Your task to perform on an android device: See recent photos Image 0: 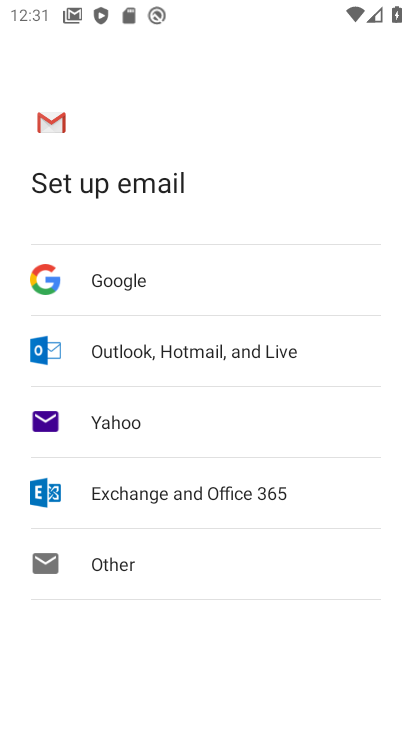
Step 0: press home button
Your task to perform on an android device: See recent photos Image 1: 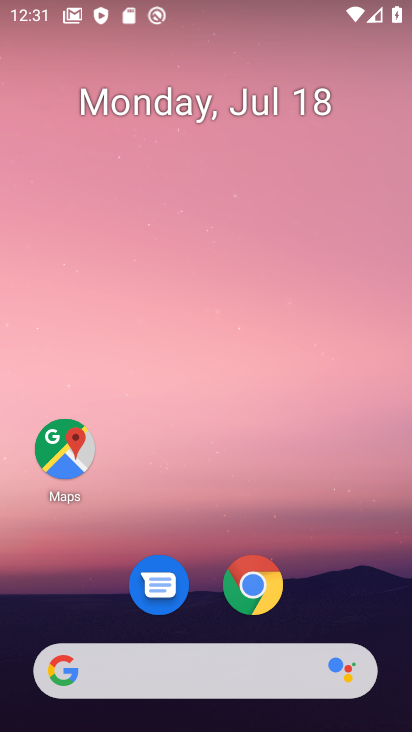
Step 1: drag from (250, 678) to (321, 121)
Your task to perform on an android device: See recent photos Image 2: 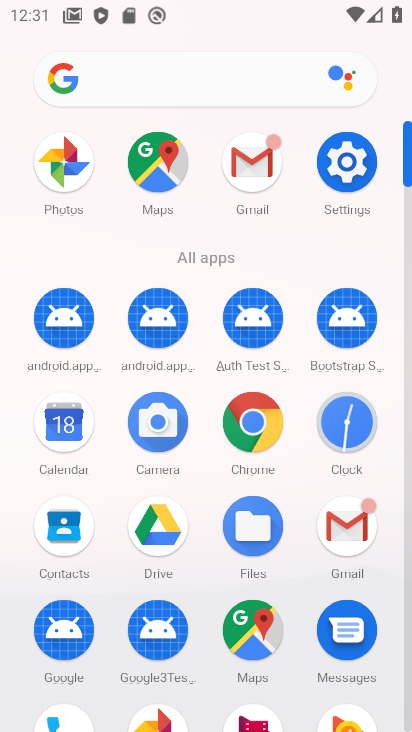
Step 2: drag from (194, 623) to (351, 232)
Your task to perform on an android device: See recent photos Image 3: 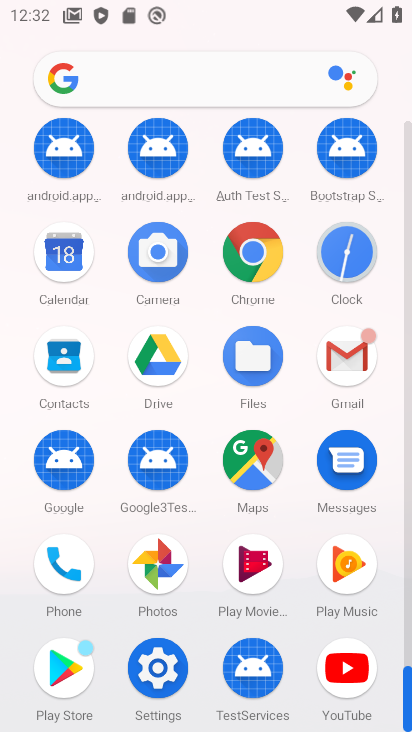
Step 3: click (142, 560)
Your task to perform on an android device: See recent photos Image 4: 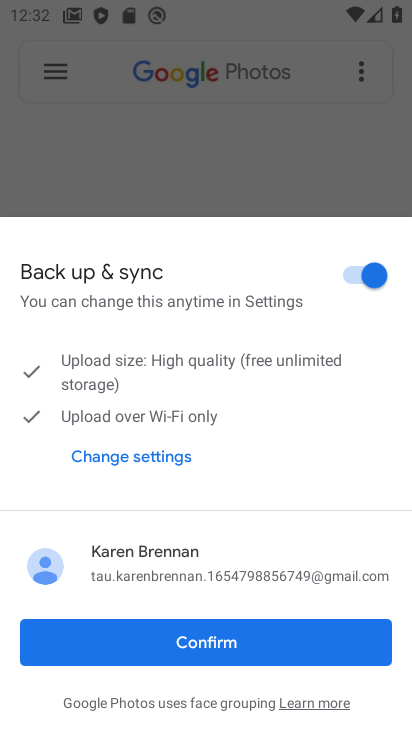
Step 4: click (225, 653)
Your task to perform on an android device: See recent photos Image 5: 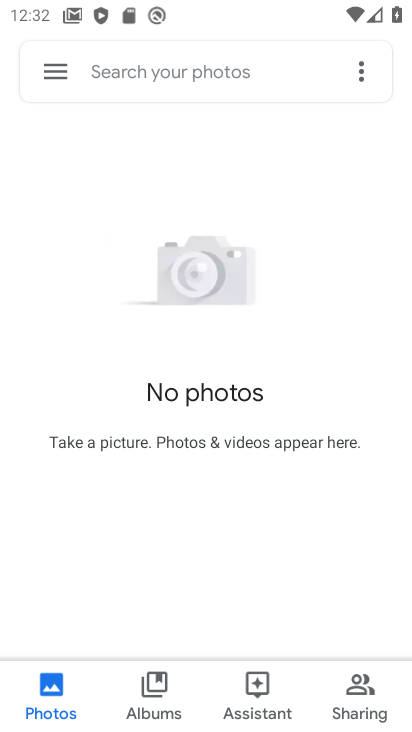
Step 5: click (164, 702)
Your task to perform on an android device: See recent photos Image 6: 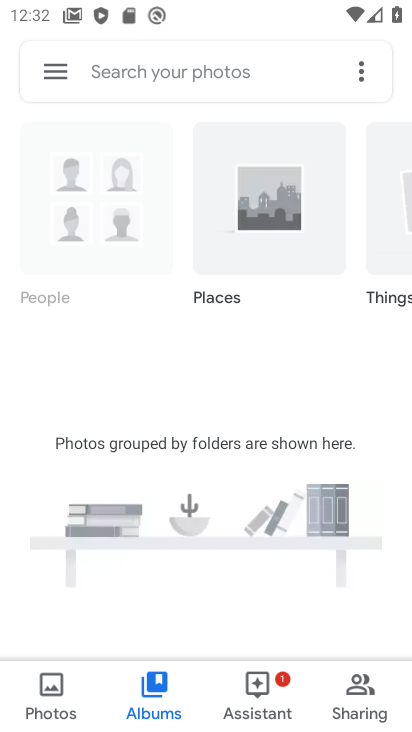
Step 6: click (212, 73)
Your task to perform on an android device: See recent photos Image 7: 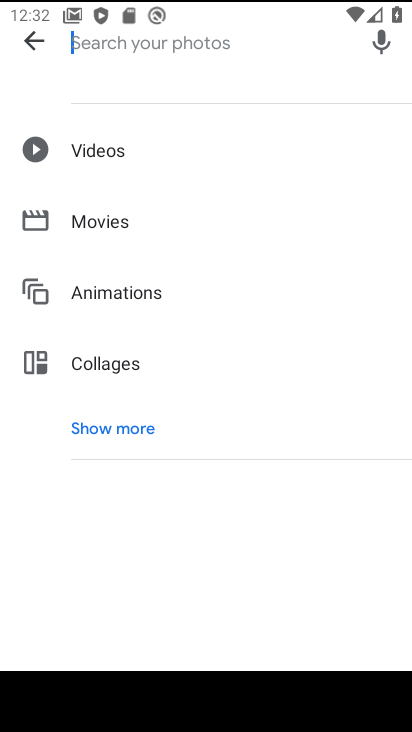
Step 7: click (141, 428)
Your task to perform on an android device: See recent photos Image 8: 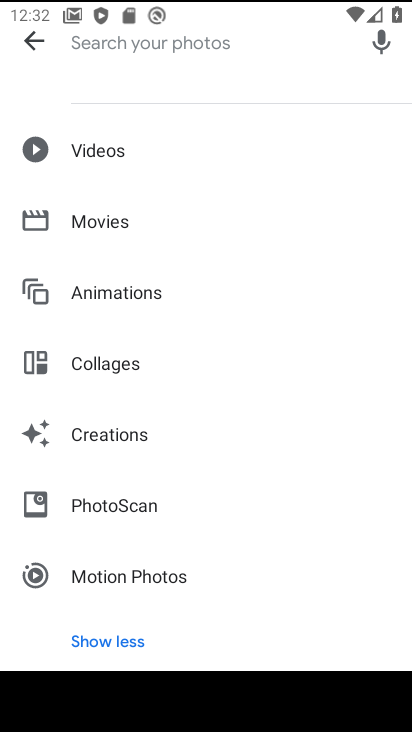
Step 8: task complete